Your task to perform on an android device: delete the emails in spam in the gmail app Image 0: 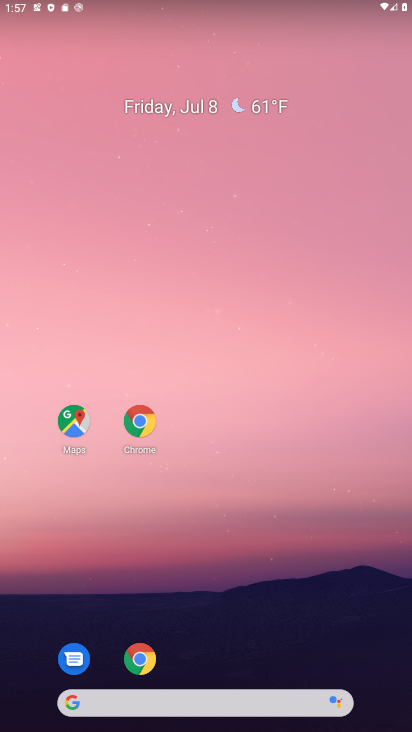
Step 0: drag from (198, 698) to (167, 77)
Your task to perform on an android device: delete the emails in spam in the gmail app Image 1: 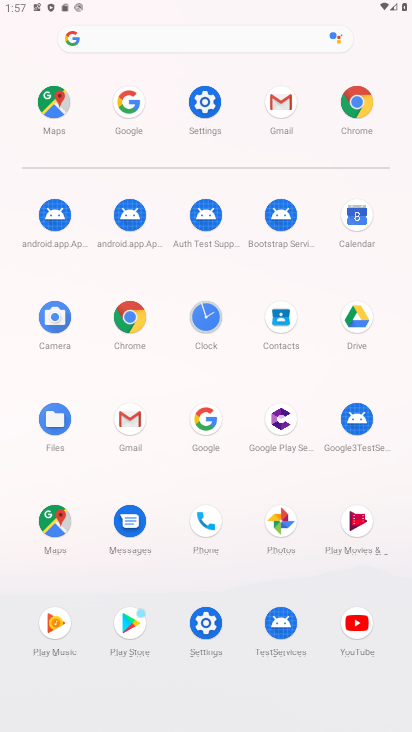
Step 1: click (131, 391)
Your task to perform on an android device: delete the emails in spam in the gmail app Image 2: 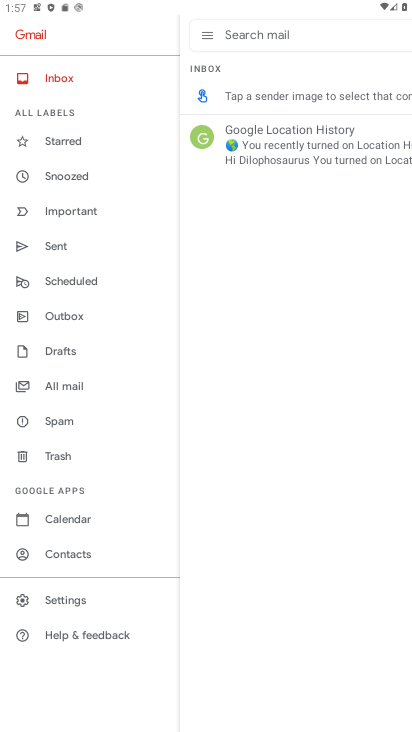
Step 2: click (81, 419)
Your task to perform on an android device: delete the emails in spam in the gmail app Image 3: 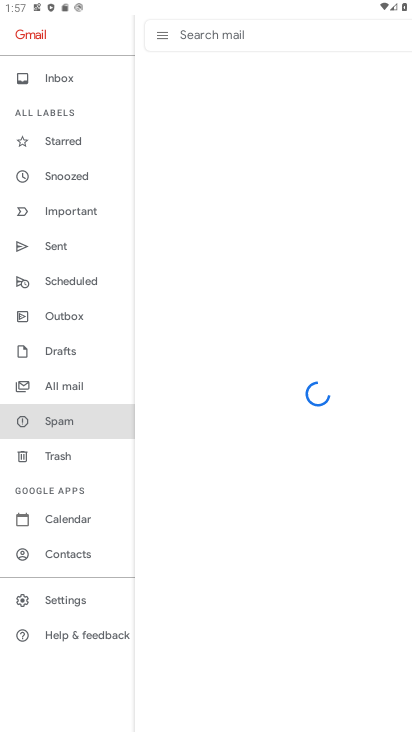
Step 3: task complete